Your task to perform on an android device: Open accessibility settings Image 0: 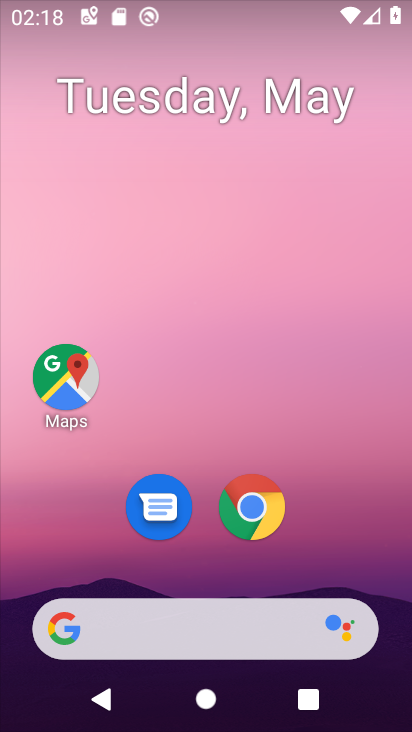
Step 0: drag from (197, 571) to (197, 213)
Your task to perform on an android device: Open accessibility settings Image 1: 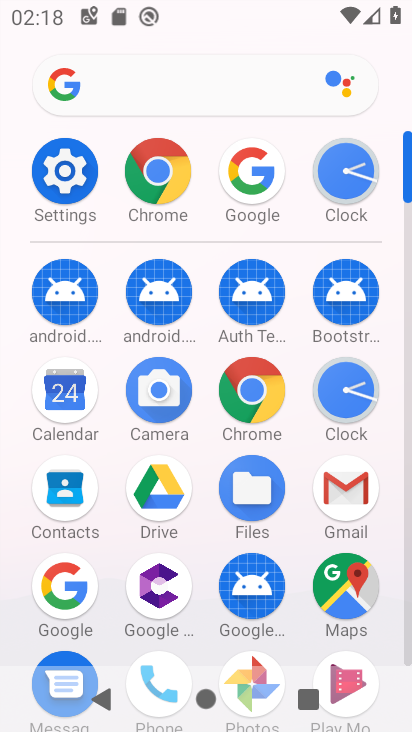
Step 1: click (58, 167)
Your task to perform on an android device: Open accessibility settings Image 2: 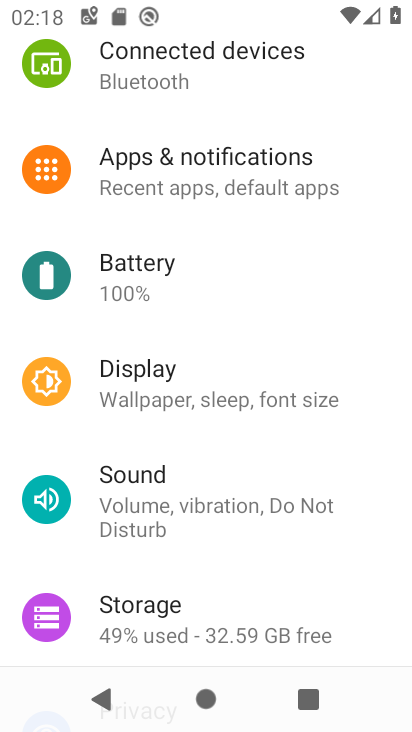
Step 2: drag from (195, 539) to (211, 223)
Your task to perform on an android device: Open accessibility settings Image 3: 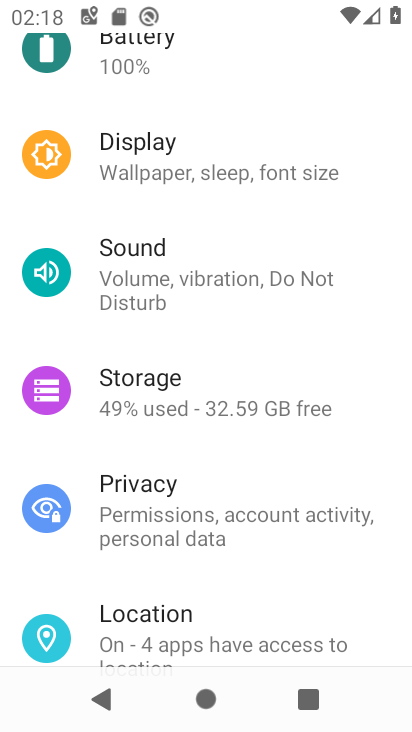
Step 3: drag from (173, 552) to (191, 271)
Your task to perform on an android device: Open accessibility settings Image 4: 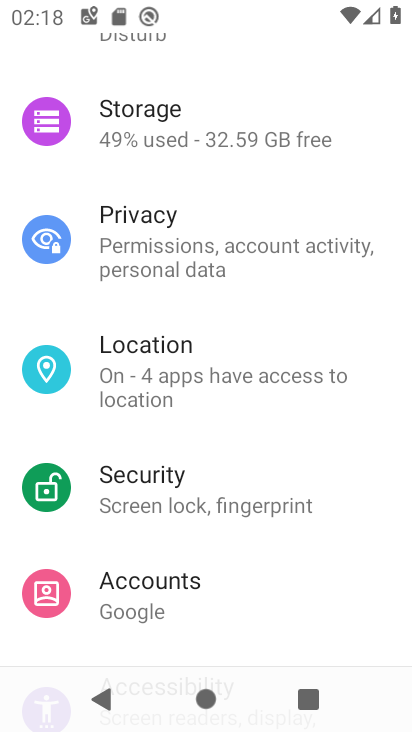
Step 4: drag from (193, 441) to (202, 146)
Your task to perform on an android device: Open accessibility settings Image 5: 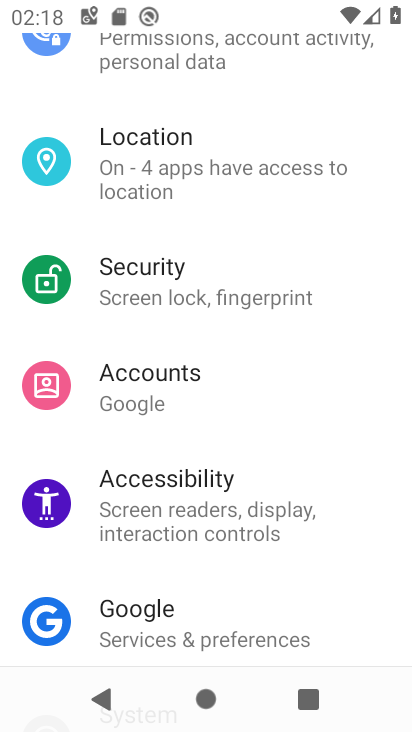
Step 5: click (181, 466)
Your task to perform on an android device: Open accessibility settings Image 6: 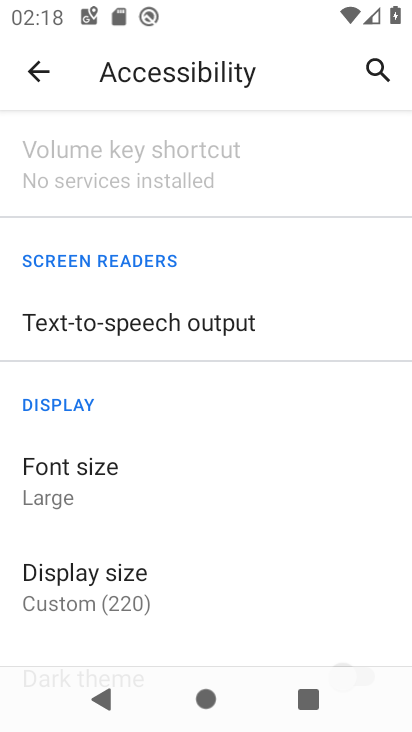
Step 6: task complete